Your task to perform on an android device: What's the weather today? Image 0: 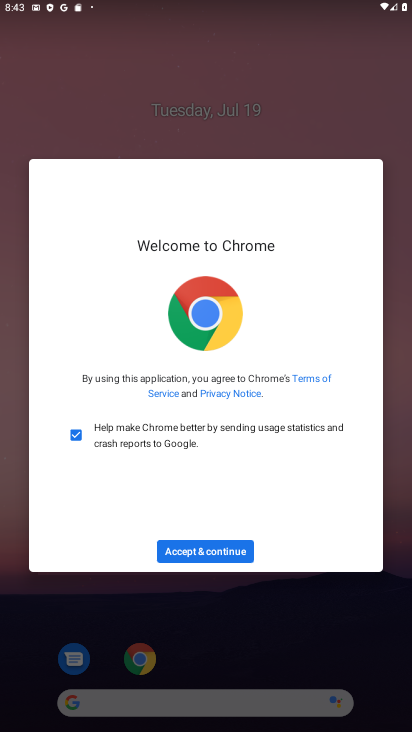
Step 0: click (164, 554)
Your task to perform on an android device: What's the weather today? Image 1: 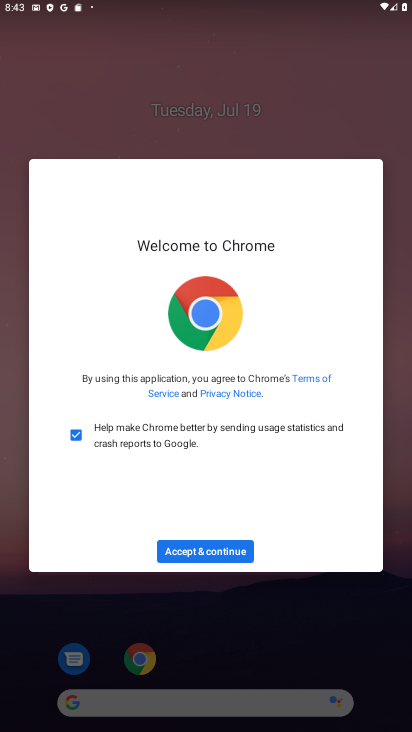
Step 1: click (164, 554)
Your task to perform on an android device: What's the weather today? Image 2: 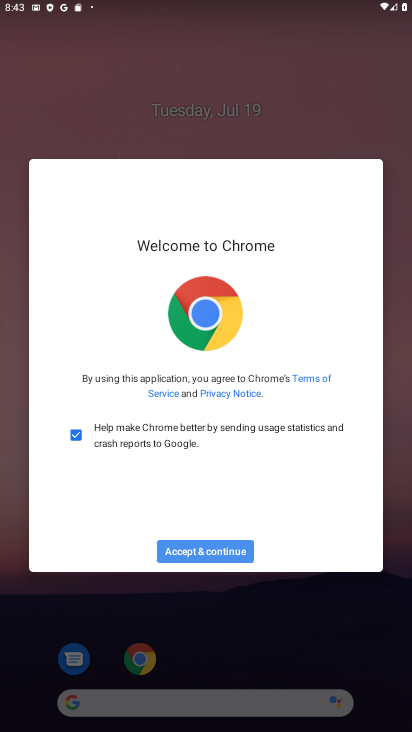
Step 2: click (164, 554)
Your task to perform on an android device: What's the weather today? Image 3: 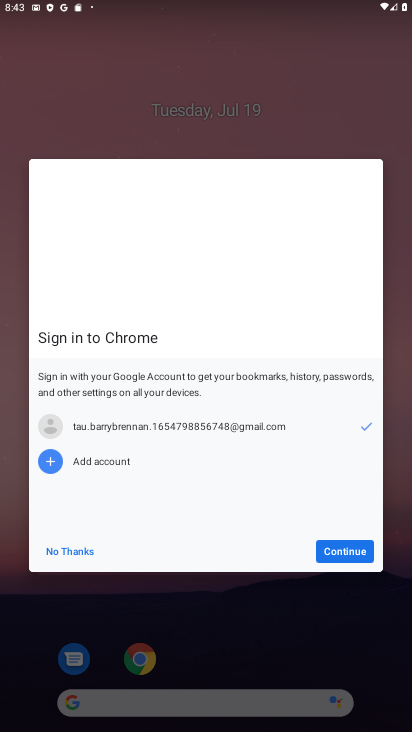
Step 3: click (164, 554)
Your task to perform on an android device: What's the weather today? Image 4: 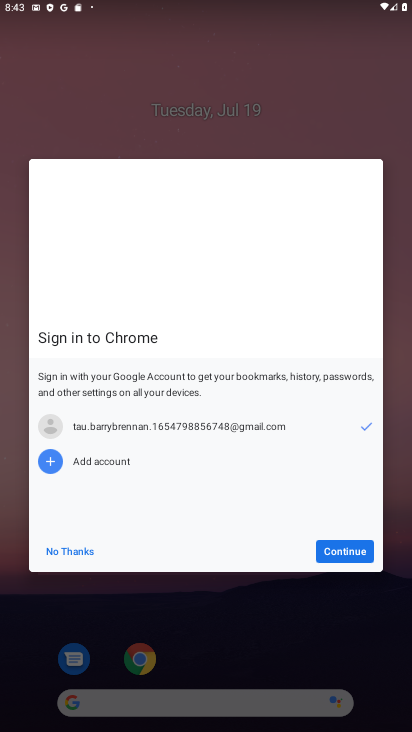
Step 4: click (164, 554)
Your task to perform on an android device: What's the weather today? Image 5: 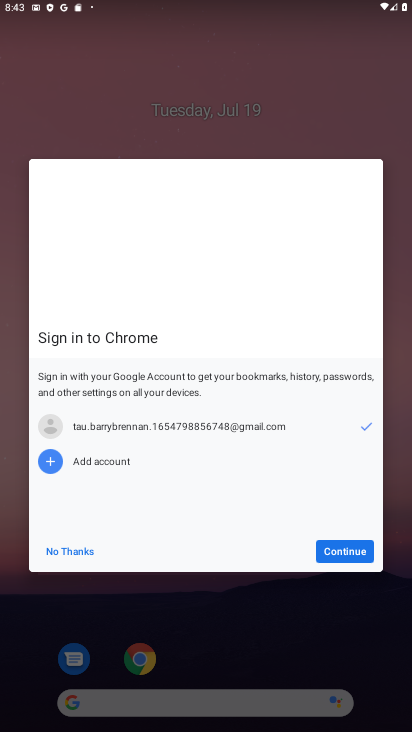
Step 5: click (164, 554)
Your task to perform on an android device: What's the weather today? Image 6: 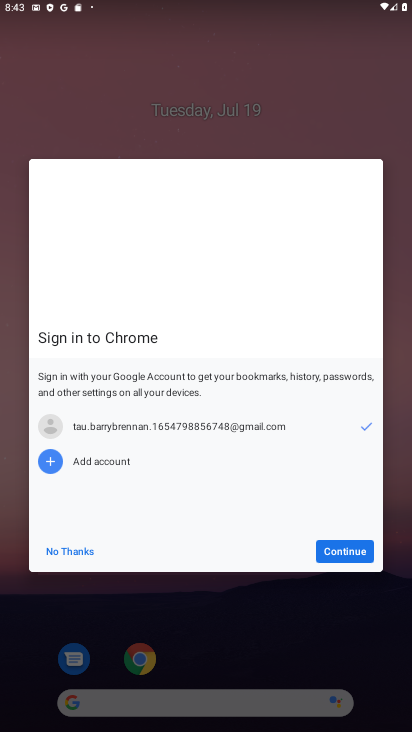
Step 6: click (164, 554)
Your task to perform on an android device: What's the weather today? Image 7: 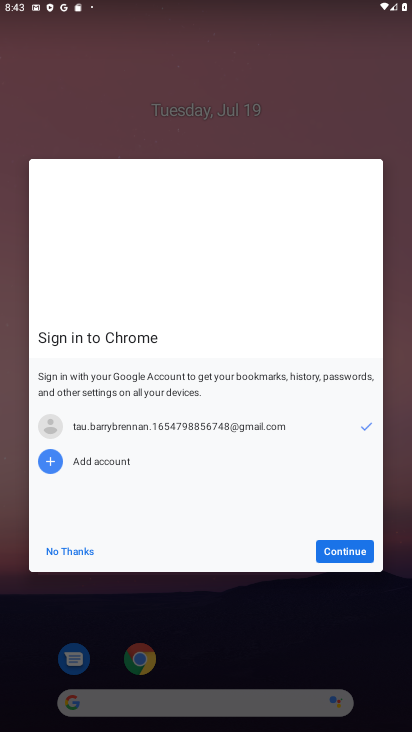
Step 7: click (328, 552)
Your task to perform on an android device: What's the weather today? Image 8: 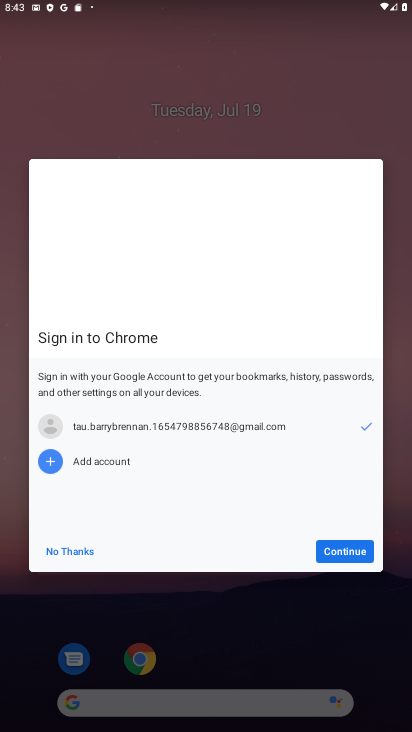
Step 8: click (328, 552)
Your task to perform on an android device: What's the weather today? Image 9: 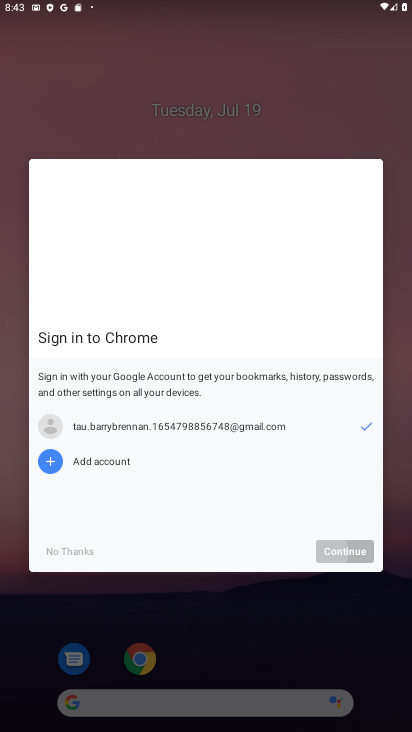
Step 9: click (328, 552)
Your task to perform on an android device: What's the weather today? Image 10: 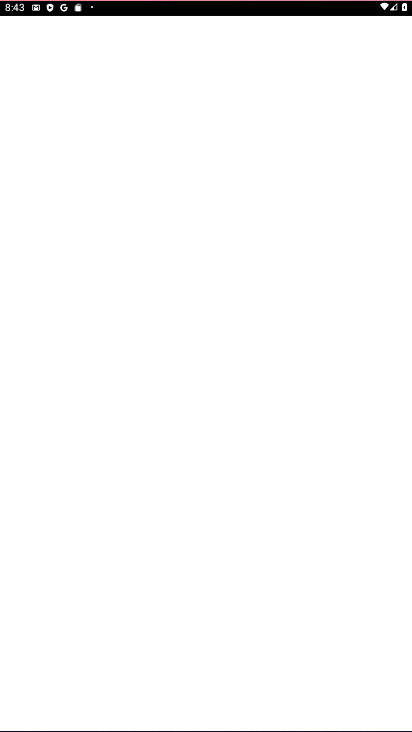
Step 10: click (328, 552)
Your task to perform on an android device: What's the weather today? Image 11: 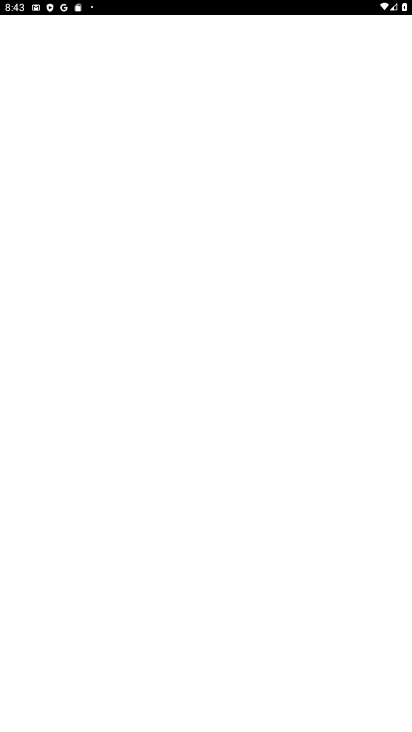
Step 11: click (328, 552)
Your task to perform on an android device: What's the weather today? Image 12: 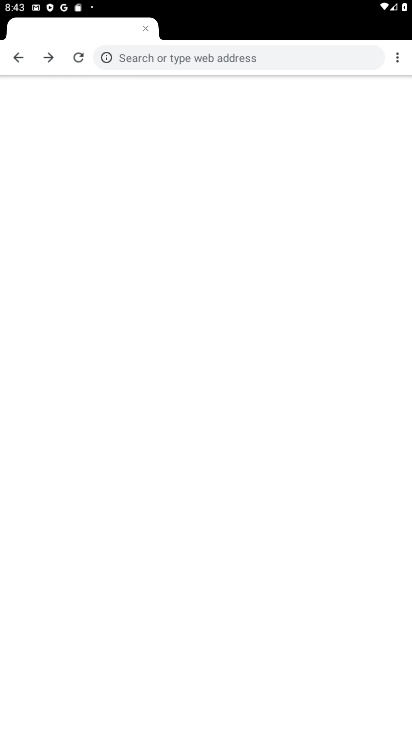
Step 12: click (328, 552)
Your task to perform on an android device: What's the weather today? Image 13: 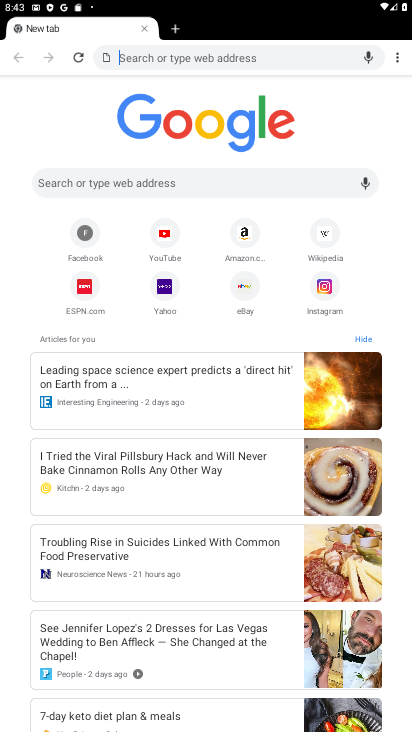
Step 13: click (137, 179)
Your task to perform on an android device: What's the weather today? Image 14: 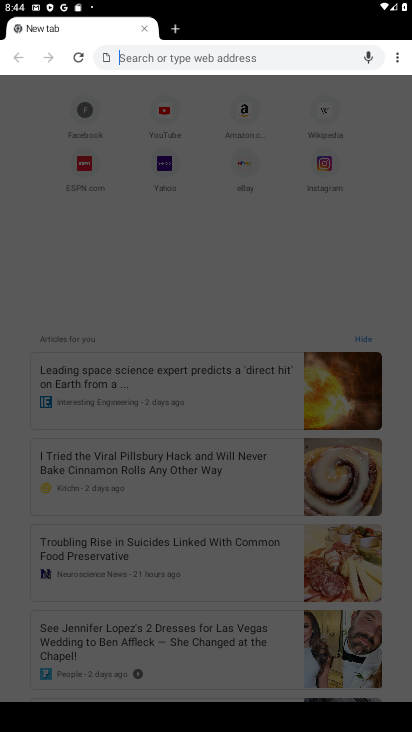
Step 14: type "What's the weather today?"
Your task to perform on an android device: What's the weather today? Image 15: 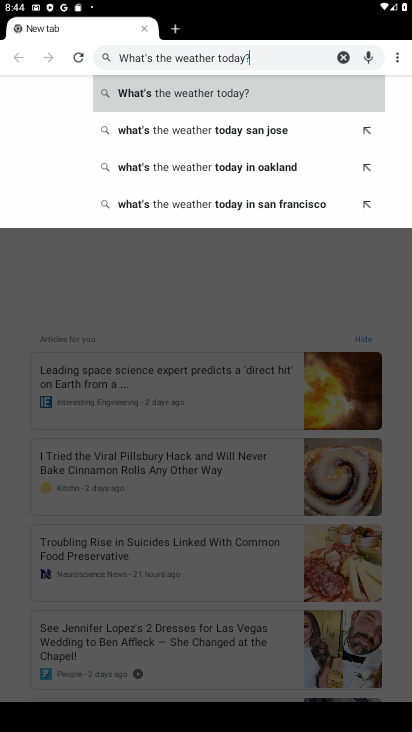
Step 15: click (168, 92)
Your task to perform on an android device: What's the weather today? Image 16: 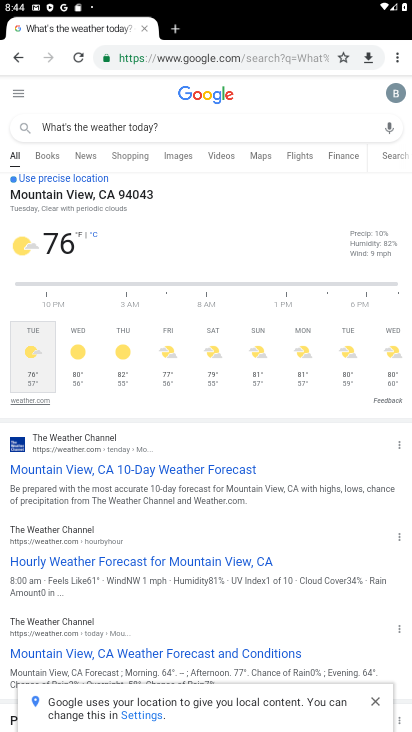
Step 16: task complete